Your task to perform on an android device: Search for pizza restaurants on Maps Image 0: 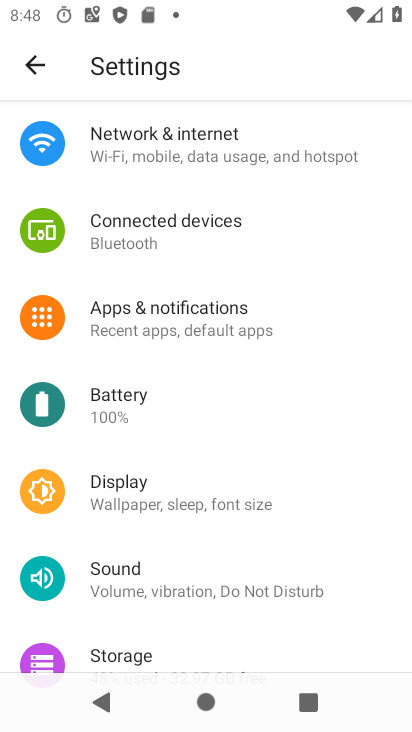
Step 0: press home button
Your task to perform on an android device: Search for pizza restaurants on Maps Image 1: 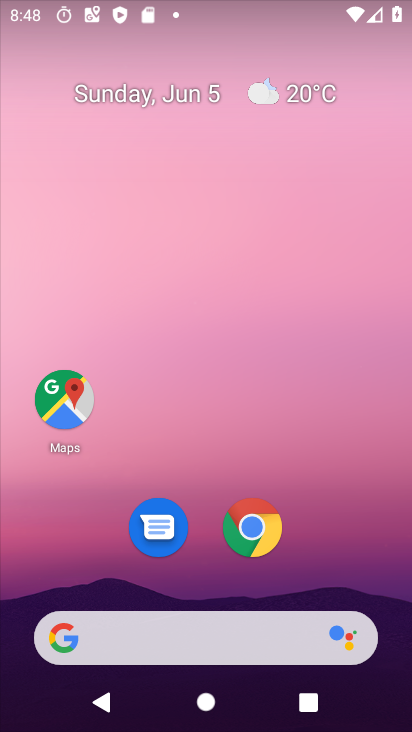
Step 1: drag from (377, 552) to (407, 339)
Your task to perform on an android device: Search for pizza restaurants on Maps Image 2: 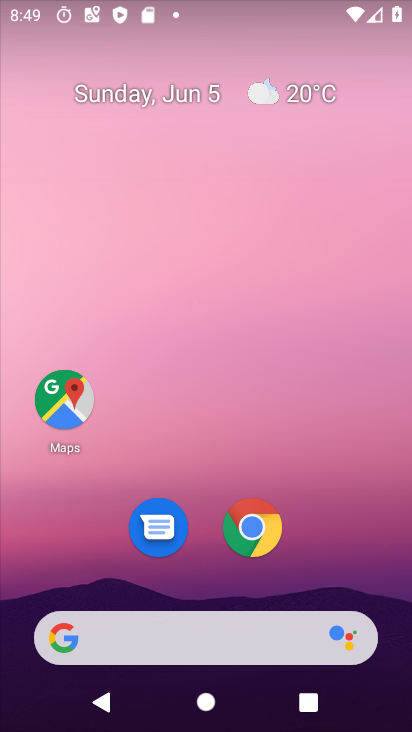
Step 2: drag from (394, 528) to (396, 87)
Your task to perform on an android device: Search for pizza restaurants on Maps Image 3: 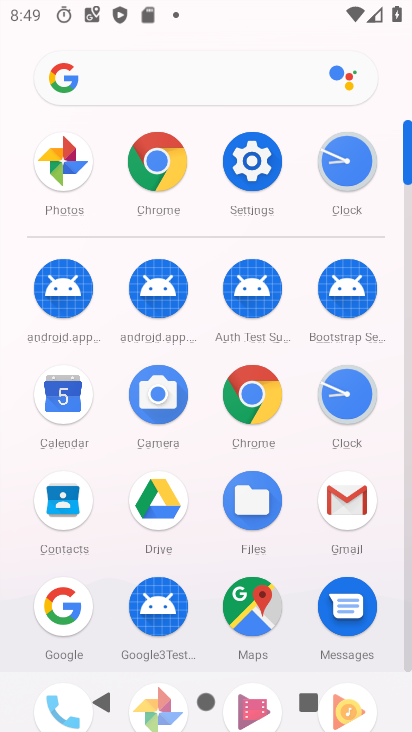
Step 3: click (260, 618)
Your task to perform on an android device: Search for pizza restaurants on Maps Image 4: 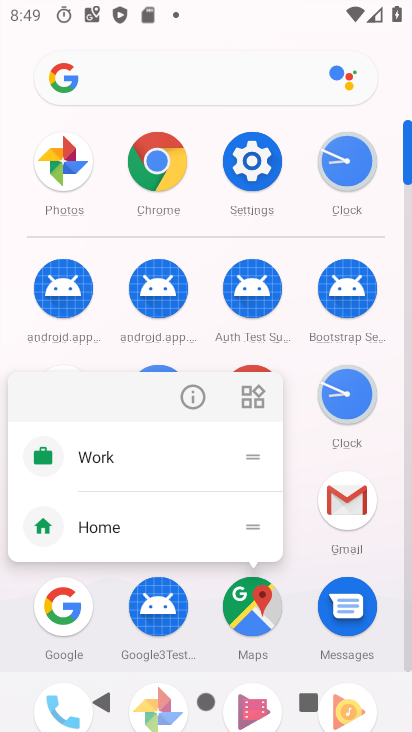
Step 4: click (250, 611)
Your task to perform on an android device: Search for pizza restaurants on Maps Image 5: 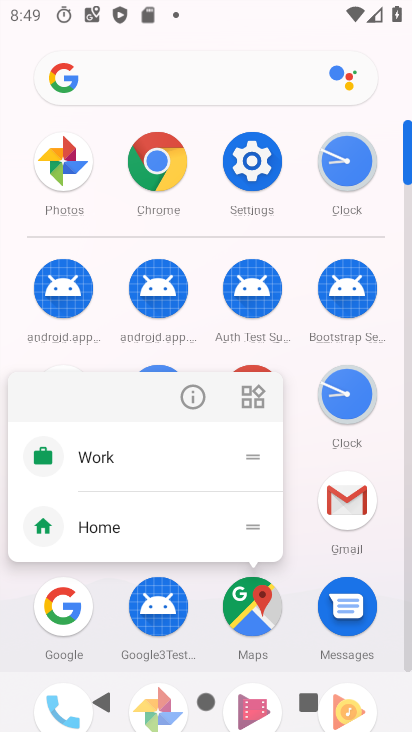
Step 5: click (250, 611)
Your task to perform on an android device: Search for pizza restaurants on Maps Image 6: 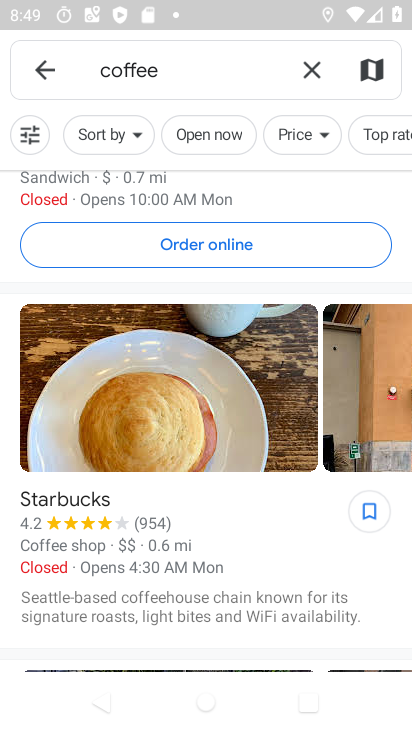
Step 6: click (301, 68)
Your task to perform on an android device: Search for pizza restaurants on Maps Image 7: 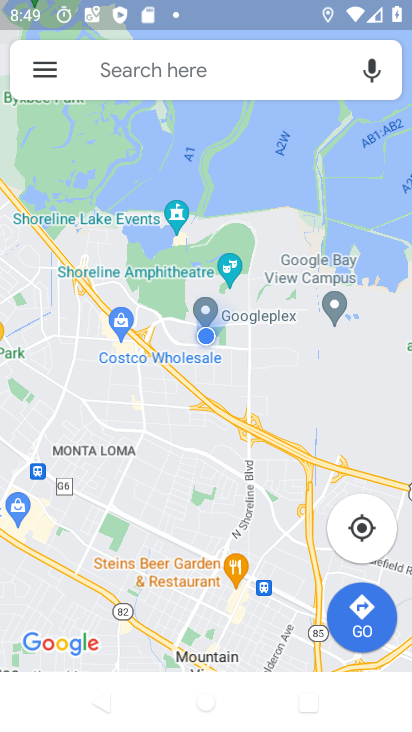
Step 7: click (224, 73)
Your task to perform on an android device: Search for pizza restaurants on Maps Image 8: 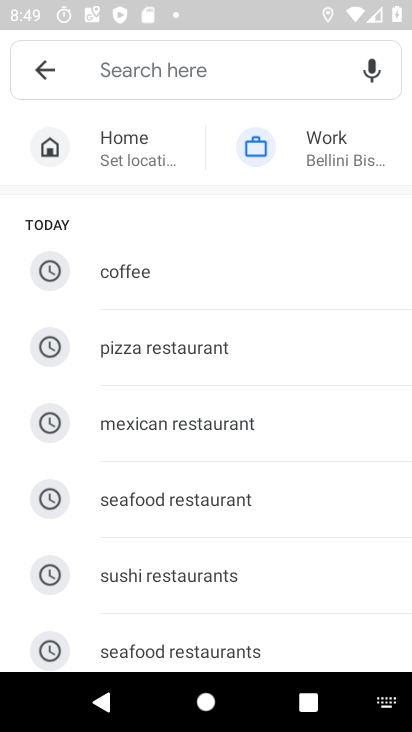
Step 8: click (223, 342)
Your task to perform on an android device: Search for pizza restaurants on Maps Image 9: 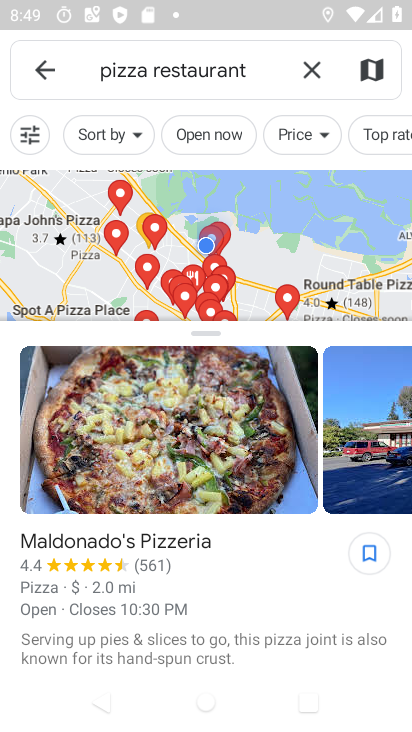
Step 9: task complete